Your task to perform on an android device: Open Youtube and go to "Your channel" Image 0: 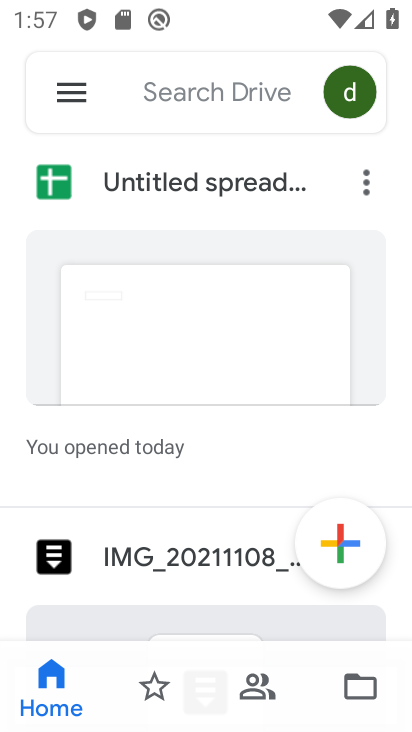
Step 0: press home button
Your task to perform on an android device: Open Youtube and go to "Your channel" Image 1: 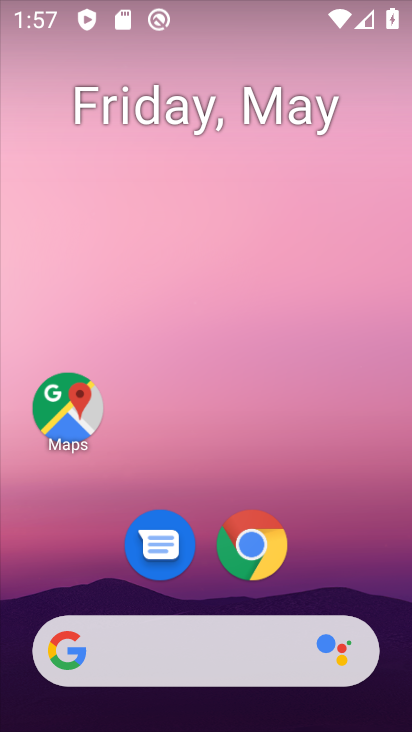
Step 1: drag from (101, 554) to (195, 237)
Your task to perform on an android device: Open Youtube and go to "Your channel" Image 2: 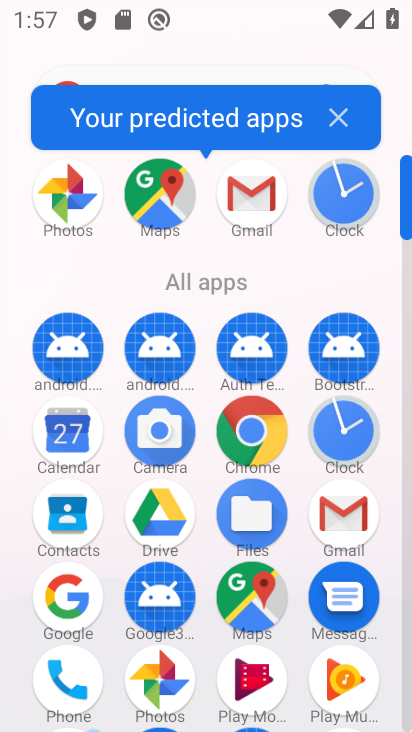
Step 2: drag from (147, 656) to (222, 413)
Your task to perform on an android device: Open Youtube and go to "Your channel" Image 3: 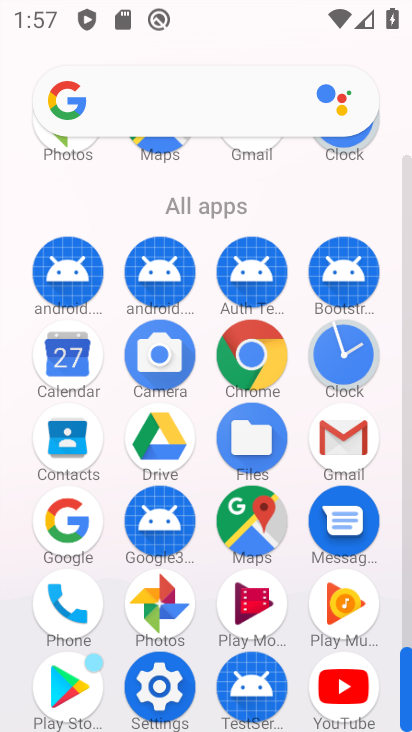
Step 3: click (344, 705)
Your task to perform on an android device: Open Youtube and go to "Your channel" Image 4: 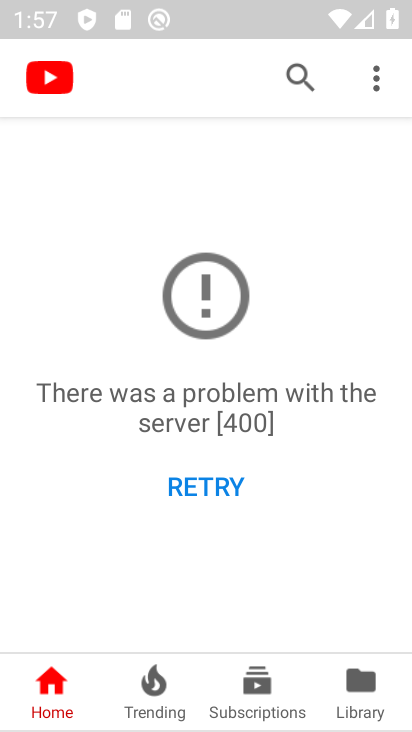
Step 4: click (370, 690)
Your task to perform on an android device: Open Youtube and go to "Your channel" Image 5: 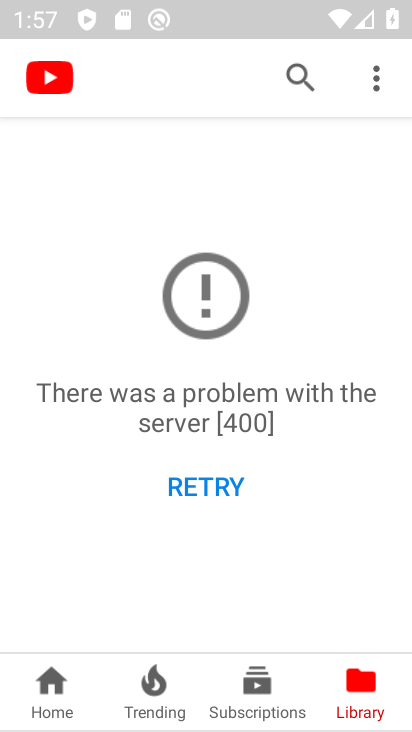
Step 5: task complete